Your task to perform on an android device: Google the capital of Uruguay Image 0: 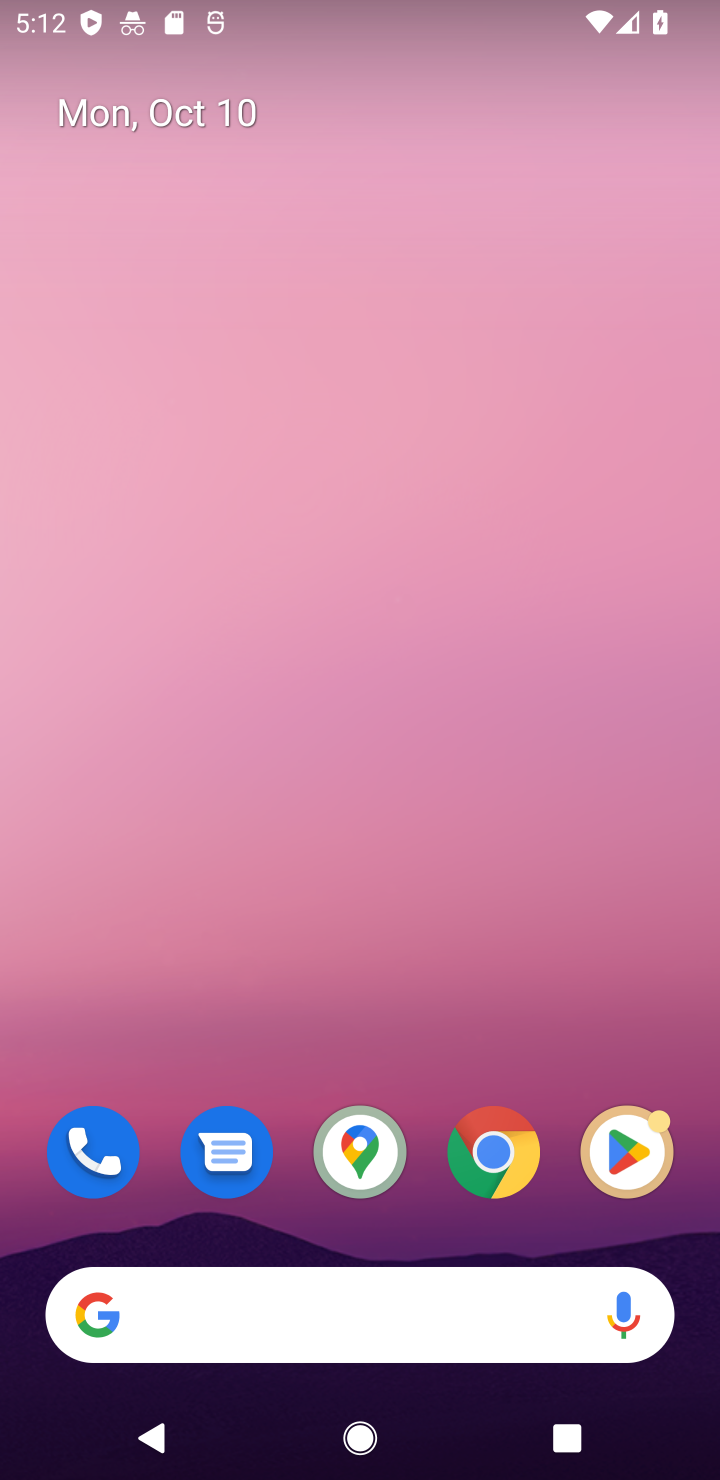
Step 0: click (498, 1158)
Your task to perform on an android device: Google the capital of Uruguay Image 1: 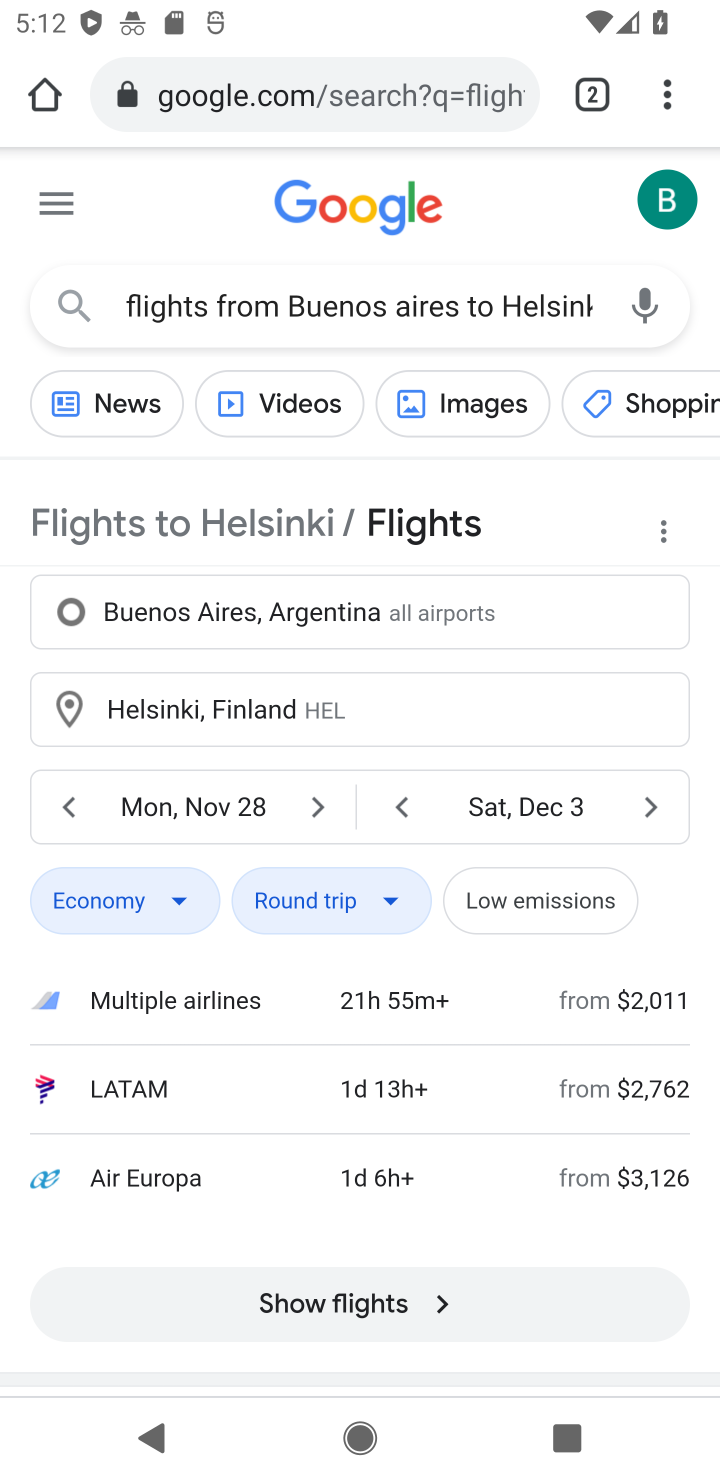
Step 1: click (454, 109)
Your task to perform on an android device: Google the capital of Uruguay Image 2: 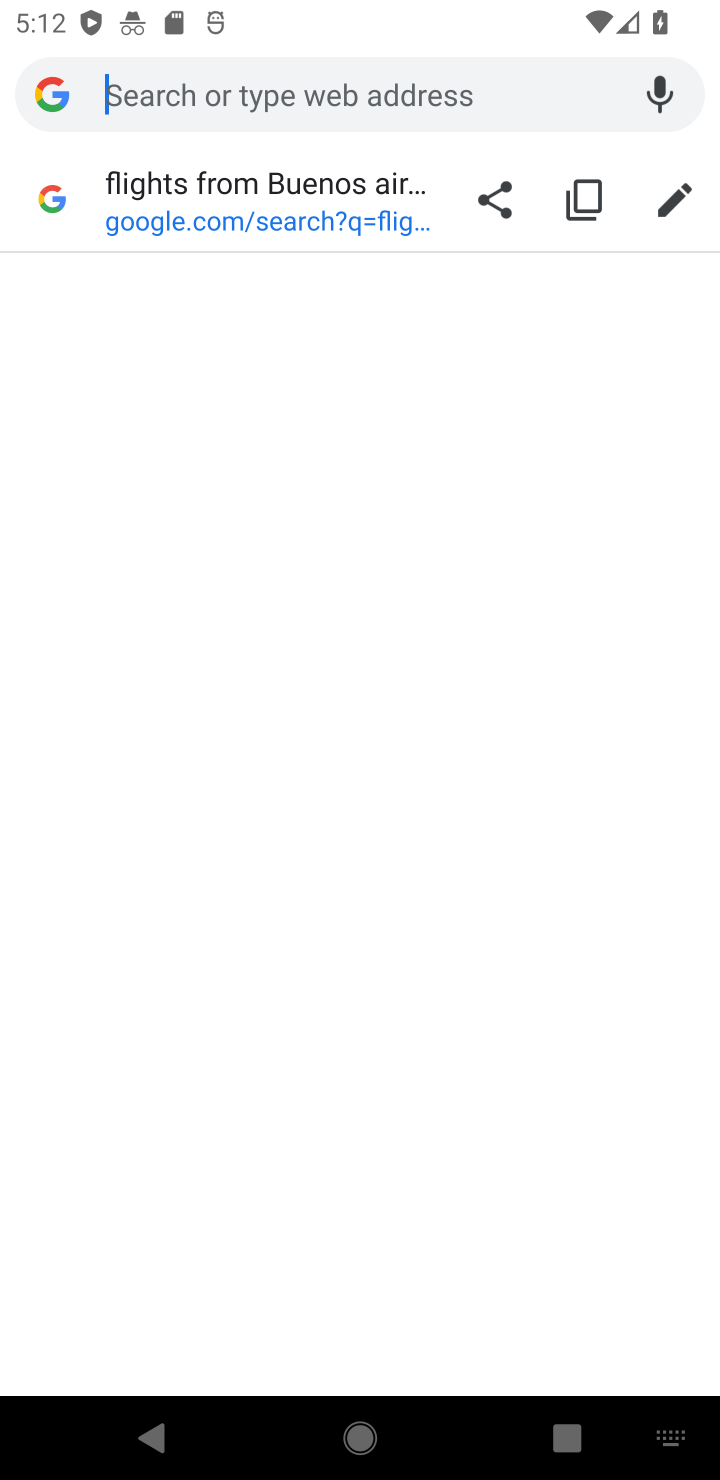
Step 2: type "capital of Uruguay"
Your task to perform on an android device: Google the capital of Uruguay Image 3: 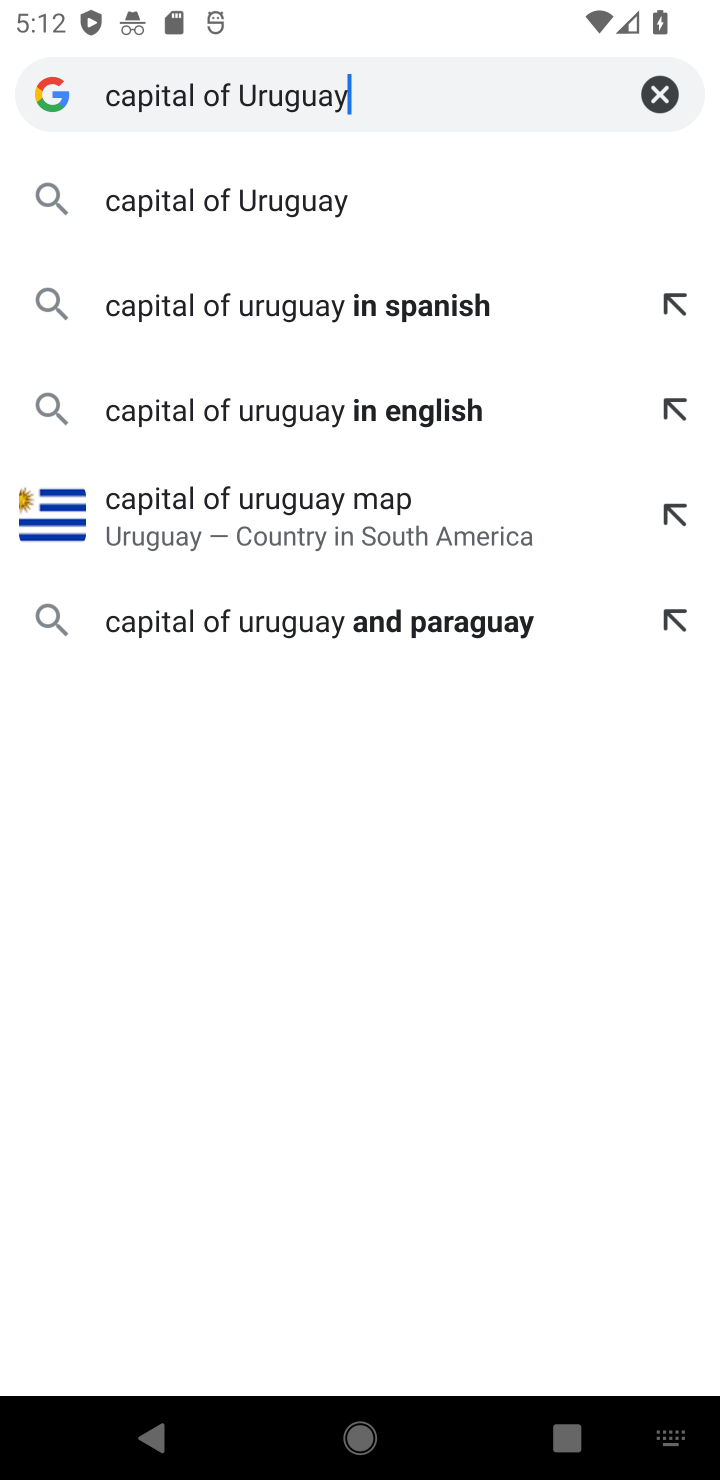
Step 3: click (247, 194)
Your task to perform on an android device: Google the capital of Uruguay Image 4: 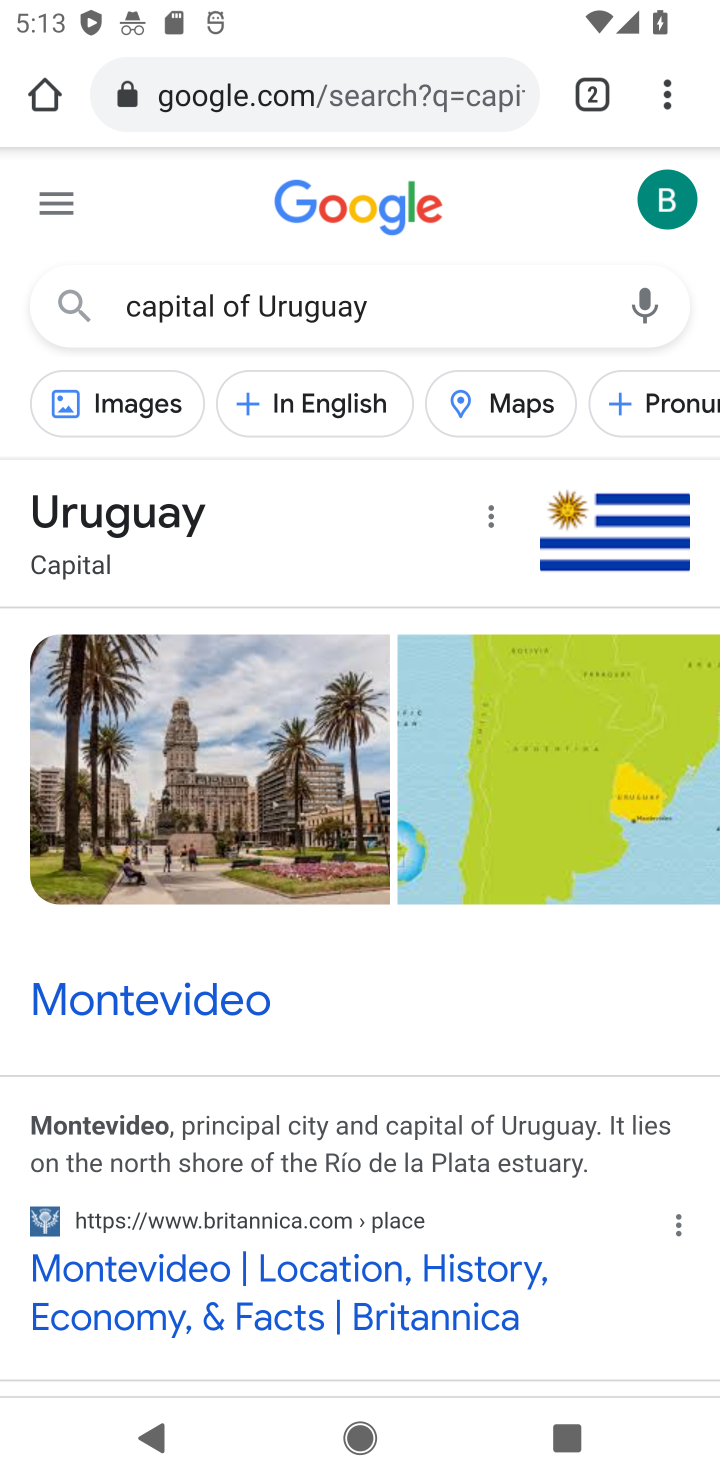
Step 4: task complete